Your task to perform on an android device: Open wifi settings Image 0: 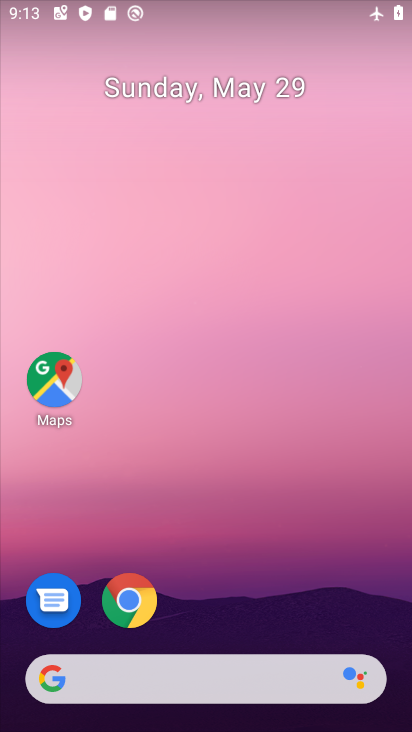
Step 0: drag from (209, 715) to (189, 129)
Your task to perform on an android device: Open wifi settings Image 1: 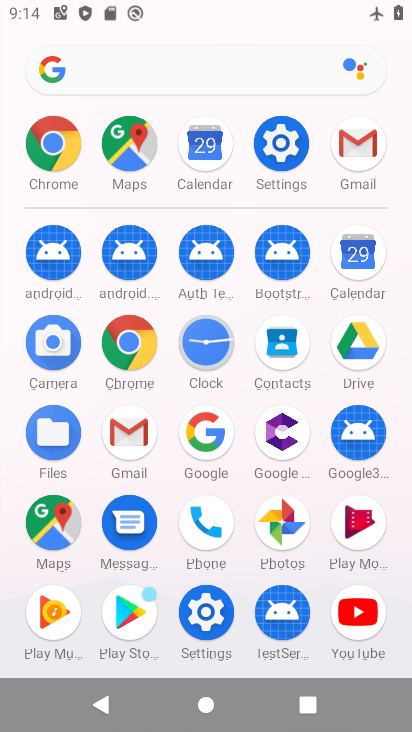
Step 1: click (282, 137)
Your task to perform on an android device: Open wifi settings Image 2: 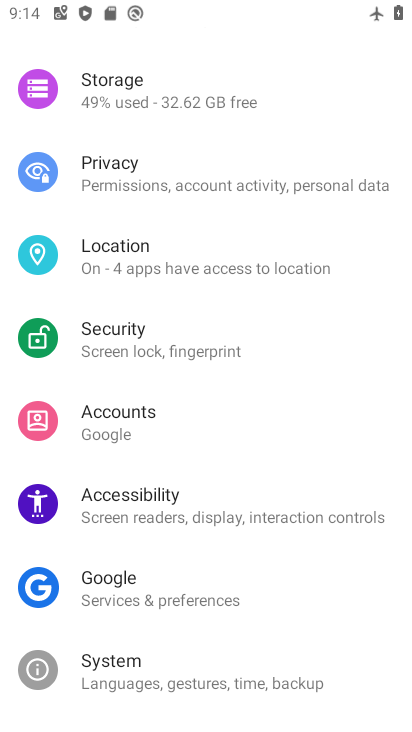
Step 2: drag from (246, 112) to (247, 464)
Your task to perform on an android device: Open wifi settings Image 3: 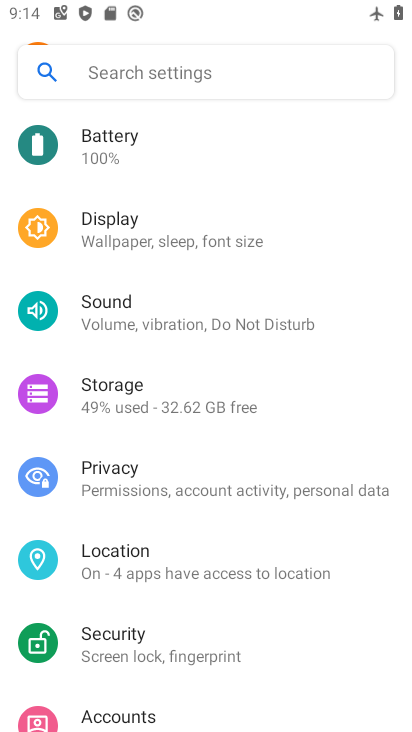
Step 3: drag from (237, 134) to (242, 510)
Your task to perform on an android device: Open wifi settings Image 4: 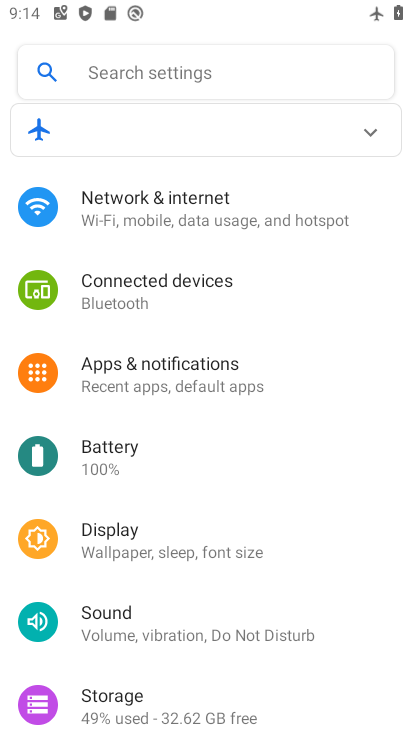
Step 4: click (140, 212)
Your task to perform on an android device: Open wifi settings Image 5: 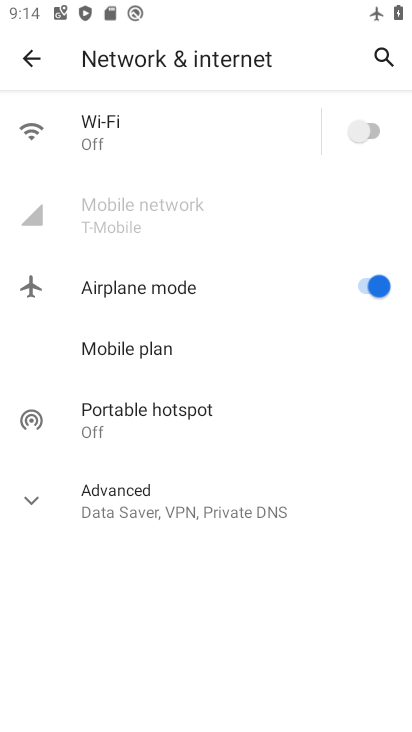
Step 5: click (102, 120)
Your task to perform on an android device: Open wifi settings Image 6: 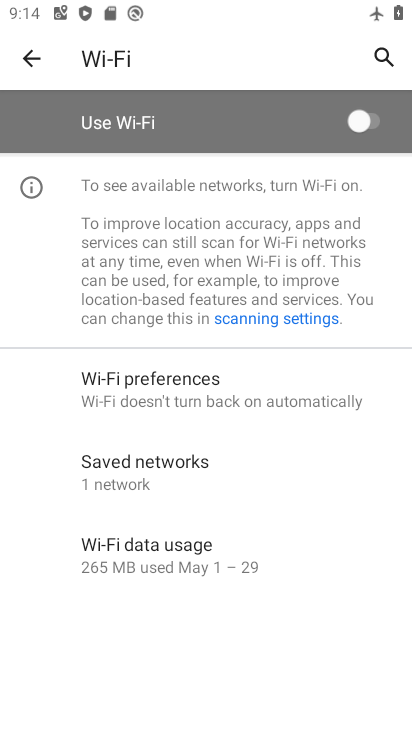
Step 6: task complete